Your task to perform on an android device: Open Chrome and go to settings Image 0: 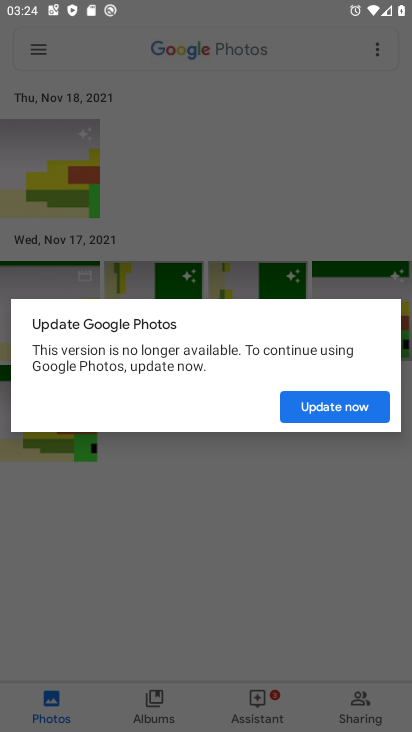
Step 0: press back button
Your task to perform on an android device: Open Chrome and go to settings Image 1: 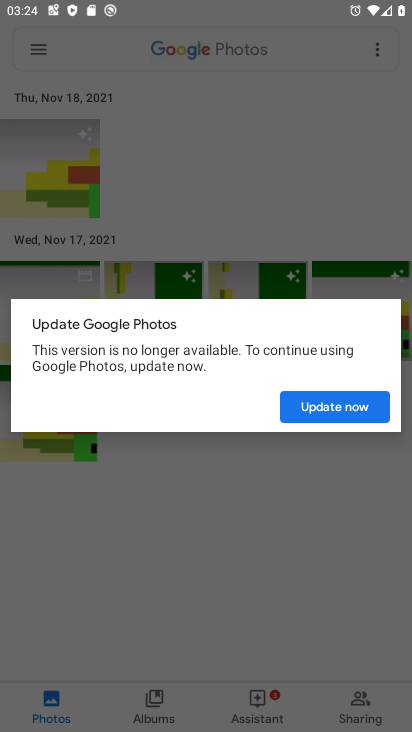
Step 1: press back button
Your task to perform on an android device: Open Chrome and go to settings Image 2: 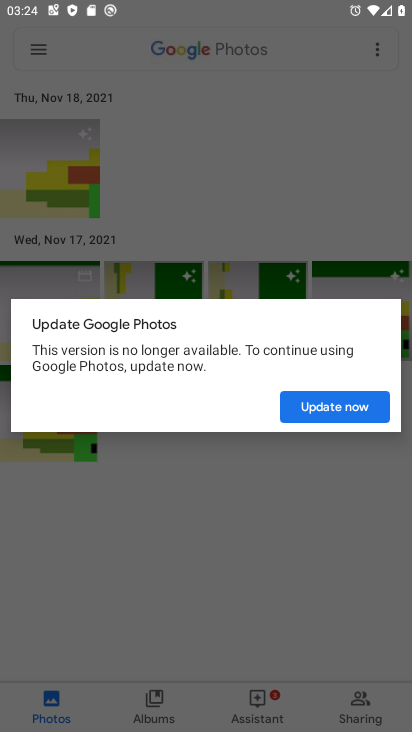
Step 2: press home button
Your task to perform on an android device: Open Chrome and go to settings Image 3: 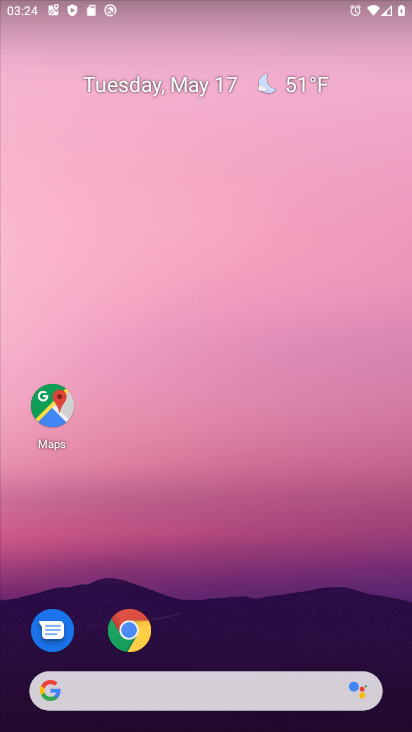
Step 3: drag from (199, 653) to (325, 1)
Your task to perform on an android device: Open Chrome and go to settings Image 4: 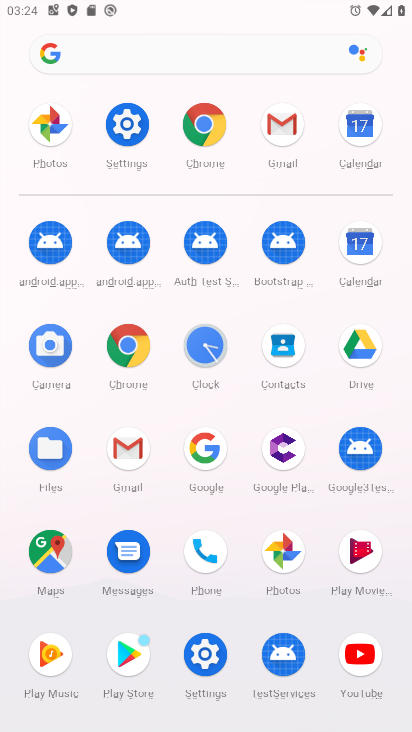
Step 4: click (210, 129)
Your task to perform on an android device: Open Chrome and go to settings Image 5: 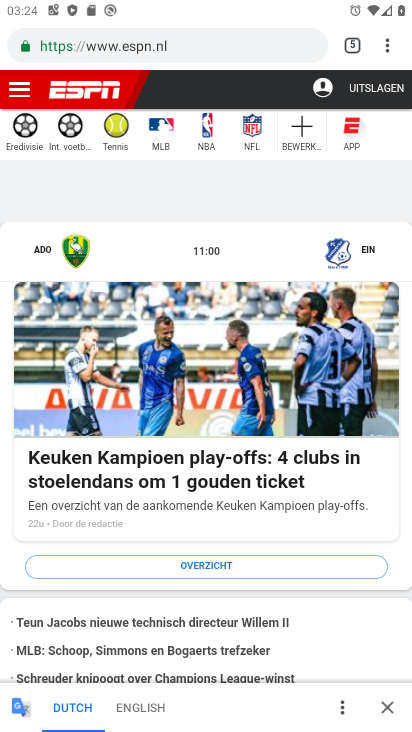
Step 5: task complete